Your task to perform on an android device: toggle priority inbox in the gmail app Image 0: 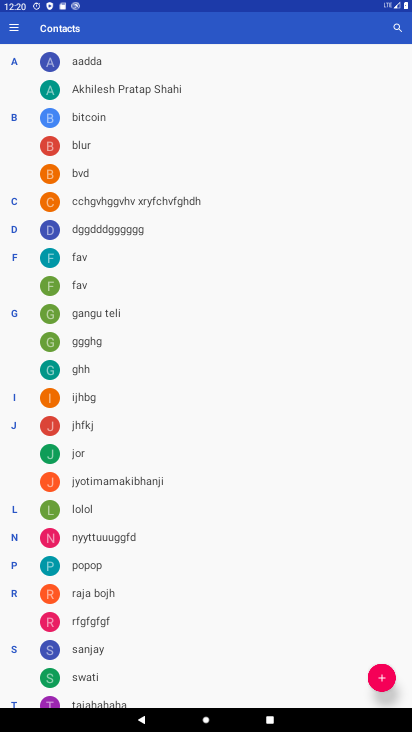
Step 0: press home button
Your task to perform on an android device: toggle priority inbox in the gmail app Image 1: 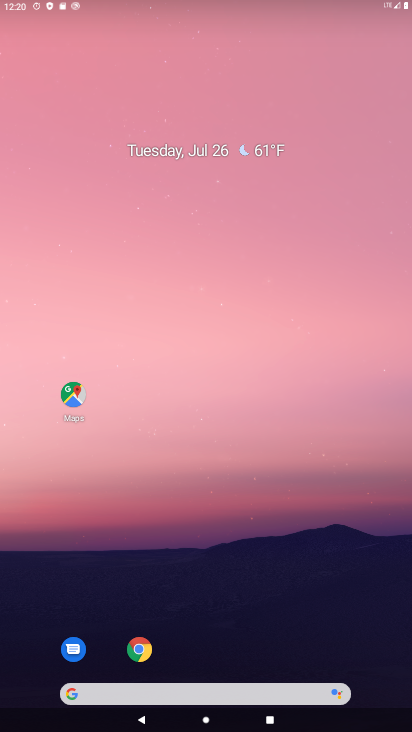
Step 1: drag from (182, 675) to (353, 684)
Your task to perform on an android device: toggle priority inbox in the gmail app Image 2: 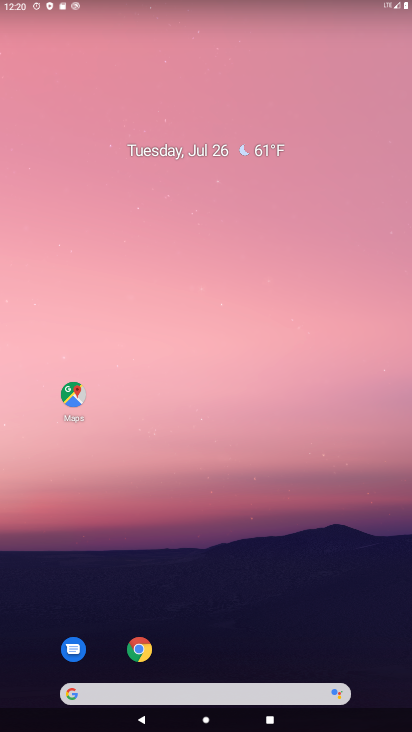
Step 2: drag from (222, 686) to (204, 43)
Your task to perform on an android device: toggle priority inbox in the gmail app Image 3: 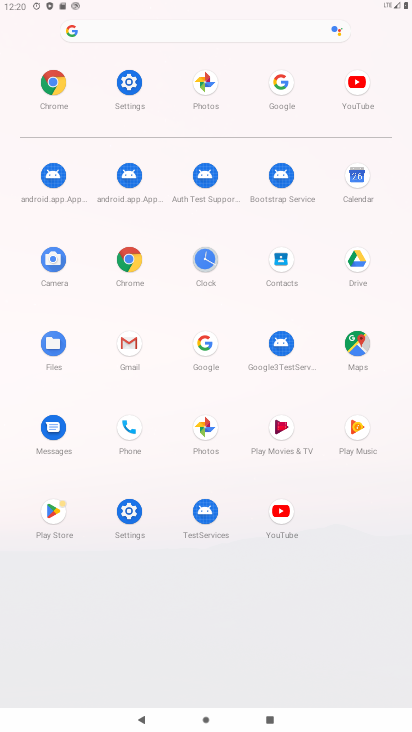
Step 3: click (129, 353)
Your task to perform on an android device: toggle priority inbox in the gmail app Image 4: 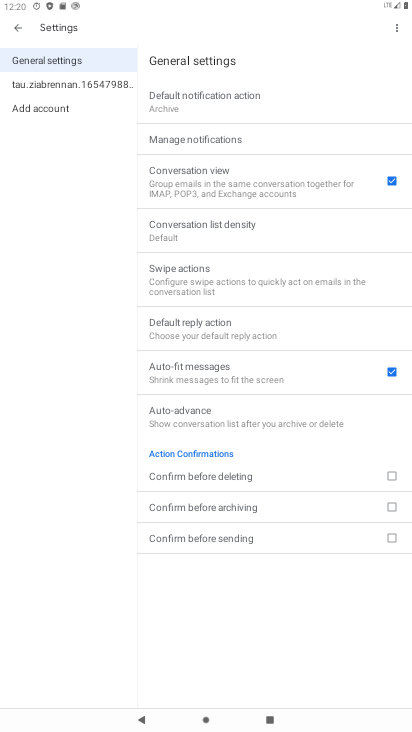
Step 4: click (49, 91)
Your task to perform on an android device: toggle priority inbox in the gmail app Image 5: 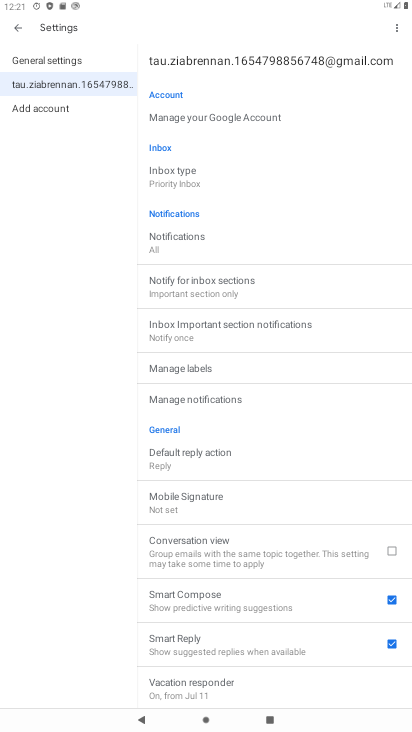
Step 5: click (195, 174)
Your task to perform on an android device: toggle priority inbox in the gmail app Image 6: 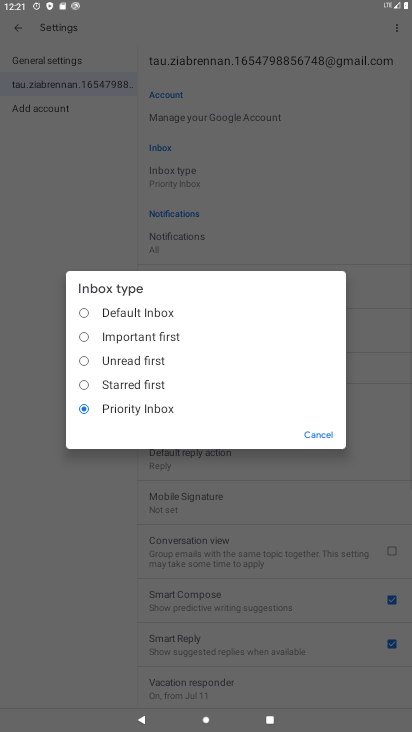
Step 6: click (118, 393)
Your task to perform on an android device: toggle priority inbox in the gmail app Image 7: 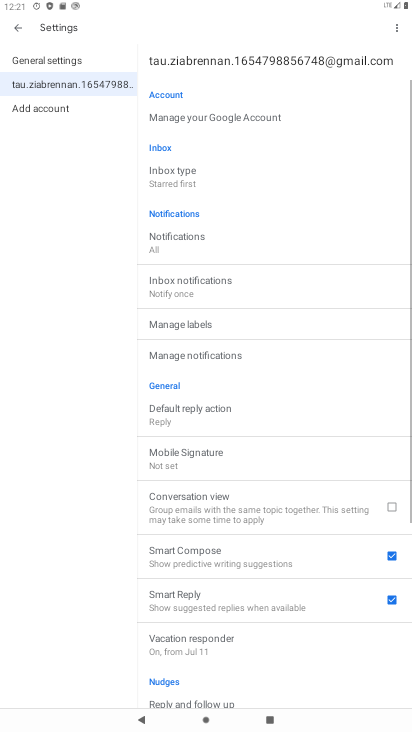
Step 7: task complete